Your task to perform on an android device: turn on translation in the chrome app Image 0: 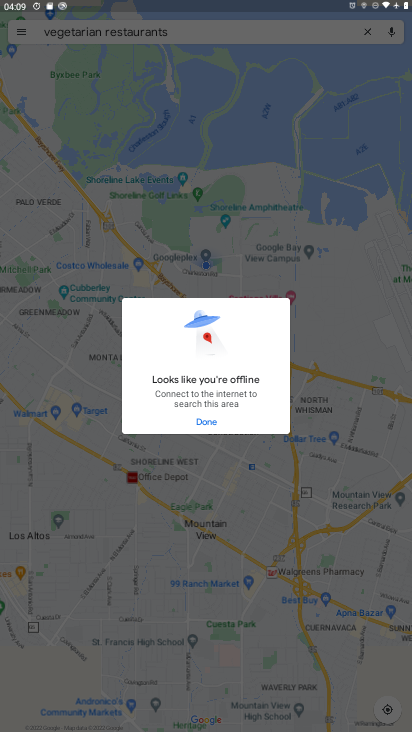
Step 0: press home button
Your task to perform on an android device: turn on translation in the chrome app Image 1: 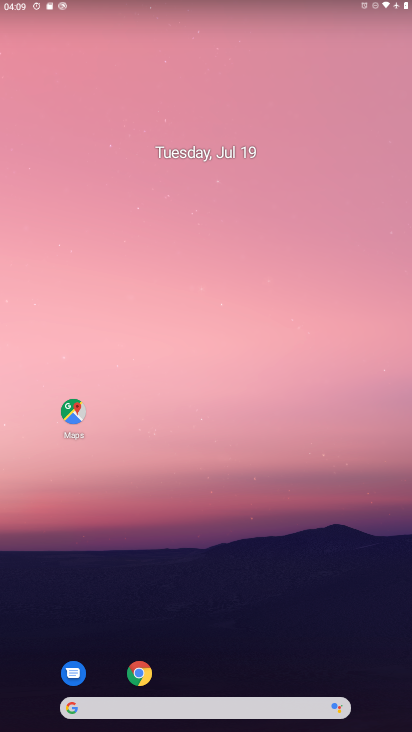
Step 1: click (139, 671)
Your task to perform on an android device: turn on translation in the chrome app Image 2: 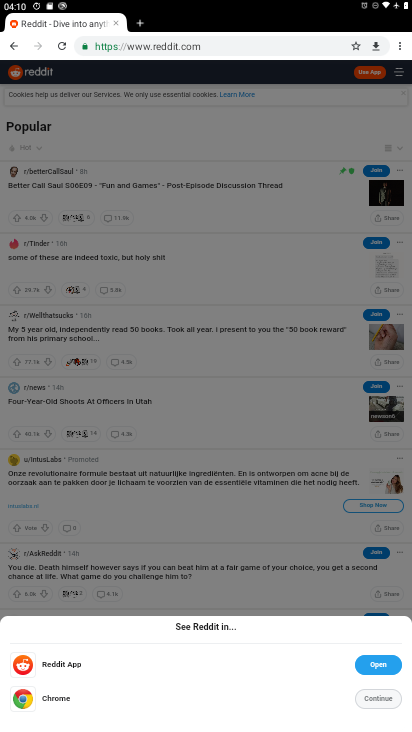
Step 2: click (402, 42)
Your task to perform on an android device: turn on translation in the chrome app Image 3: 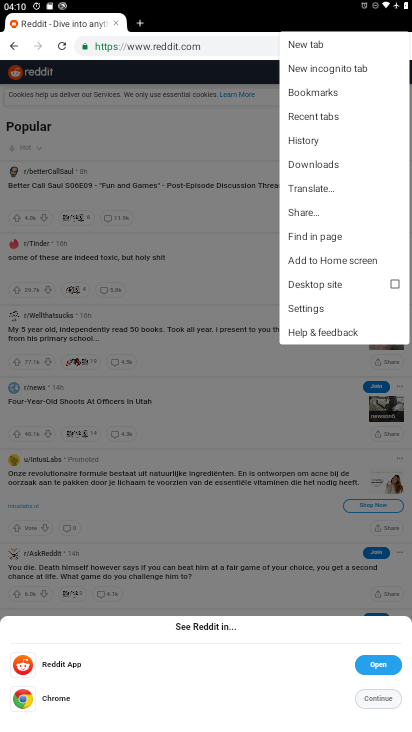
Step 3: click (315, 305)
Your task to perform on an android device: turn on translation in the chrome app Image 4: 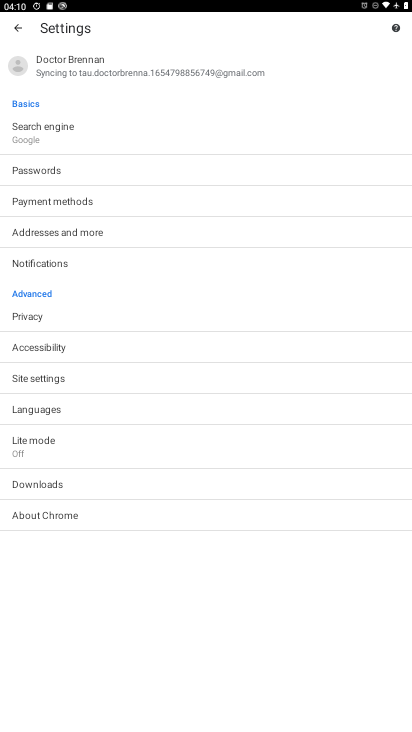
Step 4: click (47, 412)
Your task to perform on an android device: turn on translation in the chrome app Image 5: 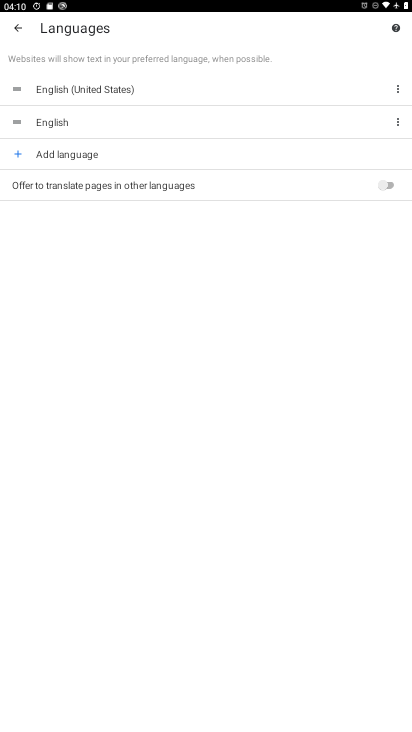
Step 5: click (353, 180)
Your task to perform on an android device: turn on translation in the chrome app Image 6: 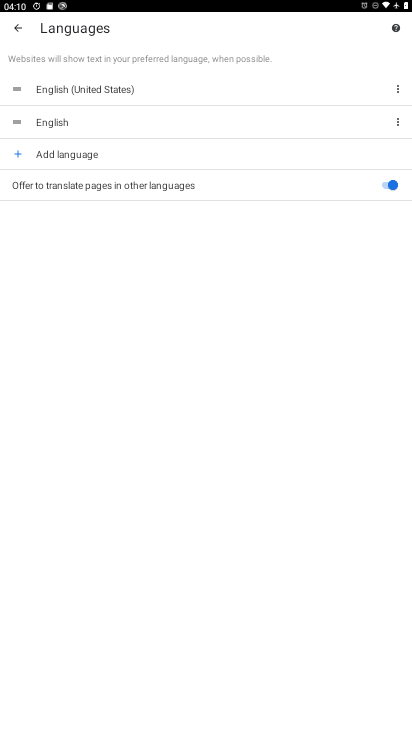
Step 6: task complete